Your task to perform on an android device: Open internet settings Image 0: 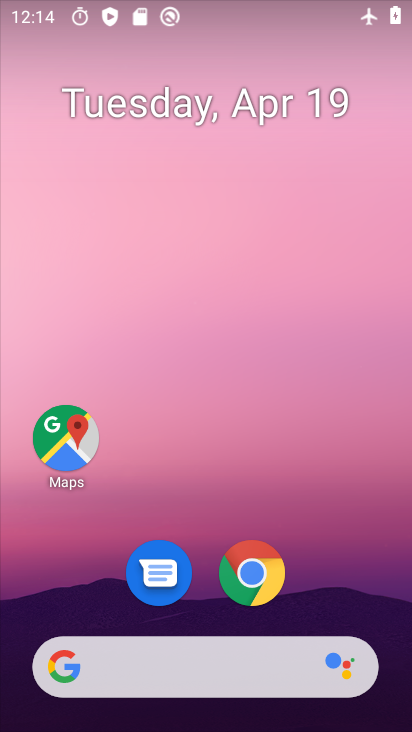
Step 0: drag from (346, 604) to (357, 246)
Your task to perform on an android device: Open internet settings Image 1: 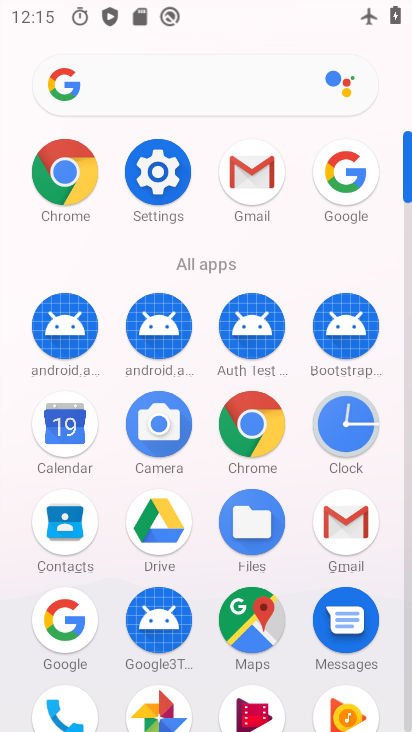
Step 1: click (184, 178)
Your task to perform on an android device: Open internet settings Image 2: 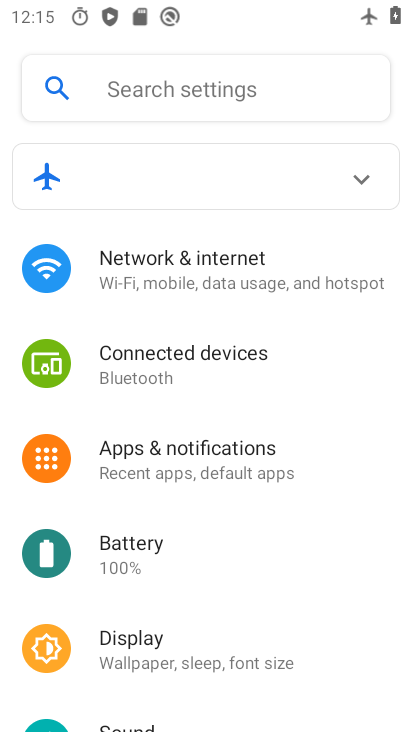
Step 2: click (205, 308)
Your task to perform on an android device: Open internet settings Image 3: 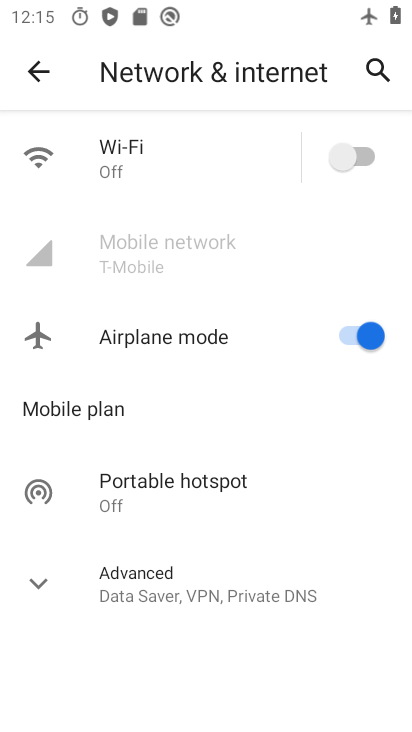
Step 3: task complete